Your task to perform on an android device: turn vacation reply on in the gmail app Image 0: 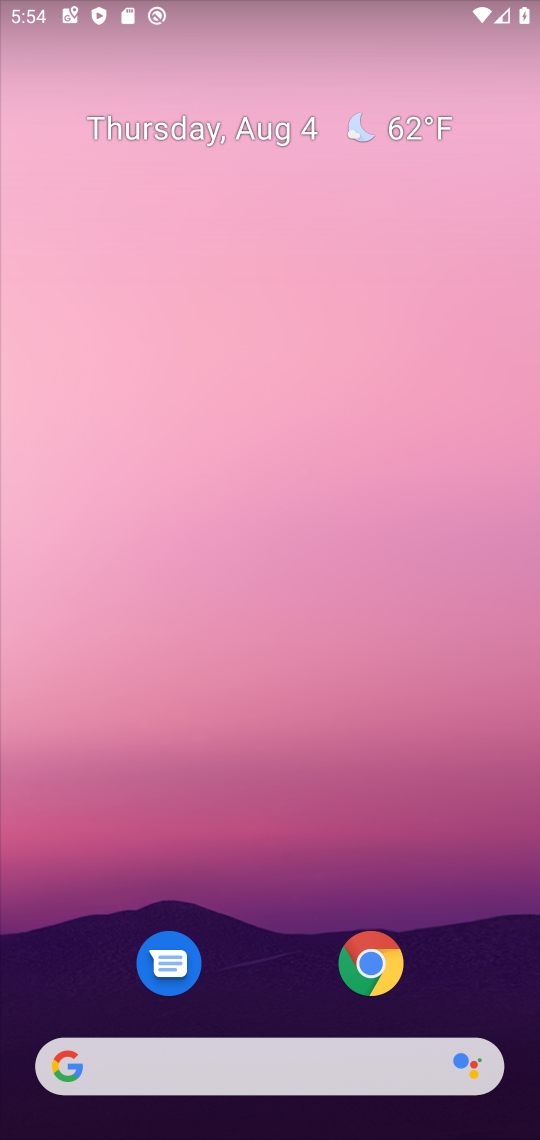
Step 0: drag from (246, 805) to (238, 41)
Your task to perform on an android device: turn vacation reply on in the gmail app Image 1: 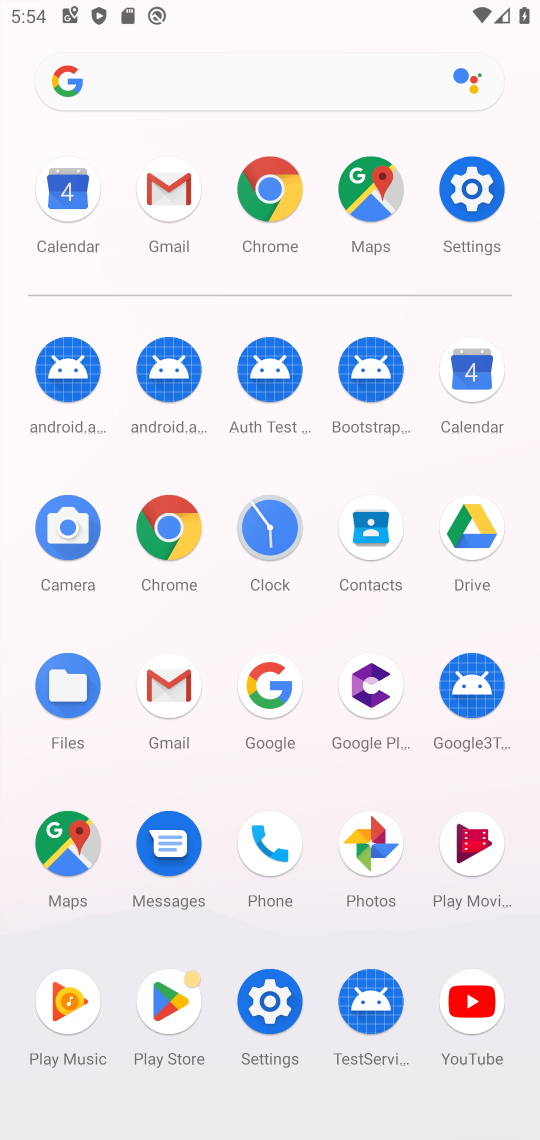
Step 1: click (170, 688)
Your task to perform on an android device: turn vacation reply on in the gmail app Image 2: 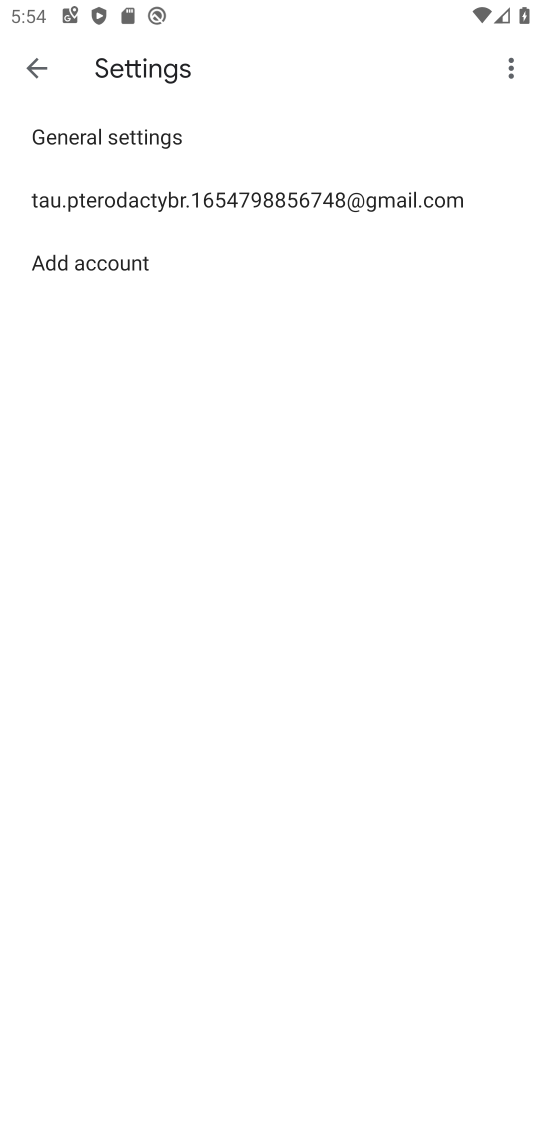
Step 2: click (97, 190)
Your task to perform on an android device: turn vacation reply on in the gmail app Image 3: 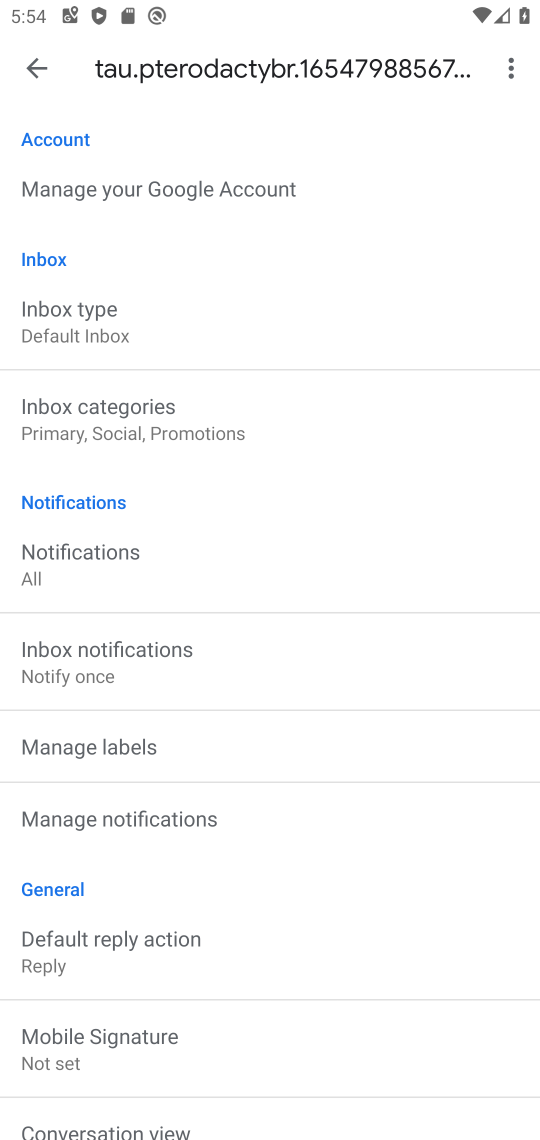
Step 3: drag from (284, 1009) to (284, 344)
Your task to perform on an android device: turn vacation reply on in the gmail app Image 4: 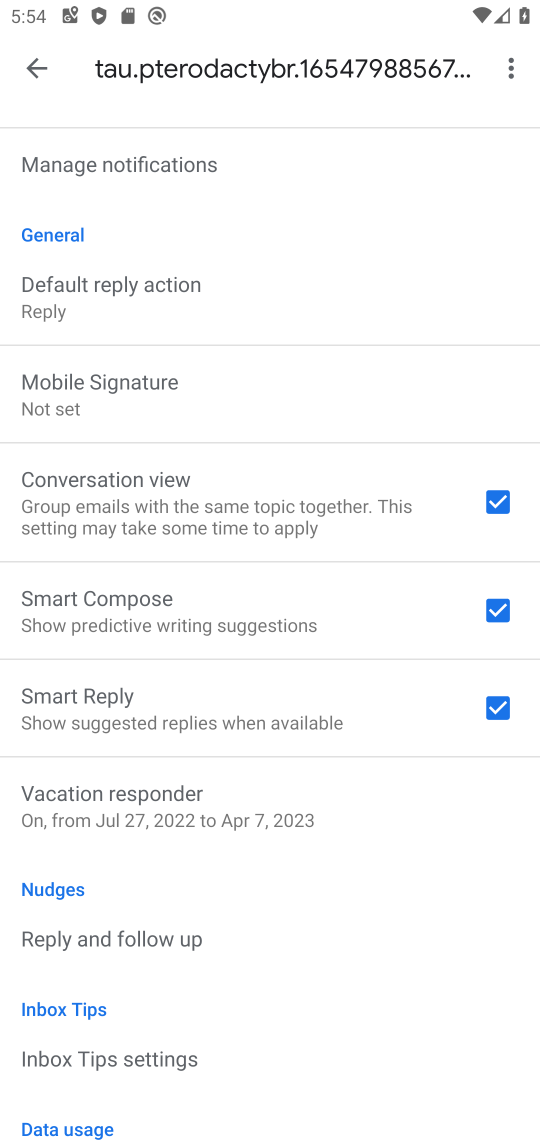
Step 4: click (146, 797)
Your task to perform on an android device: turn vacation reply on in the gmail app Image 5: 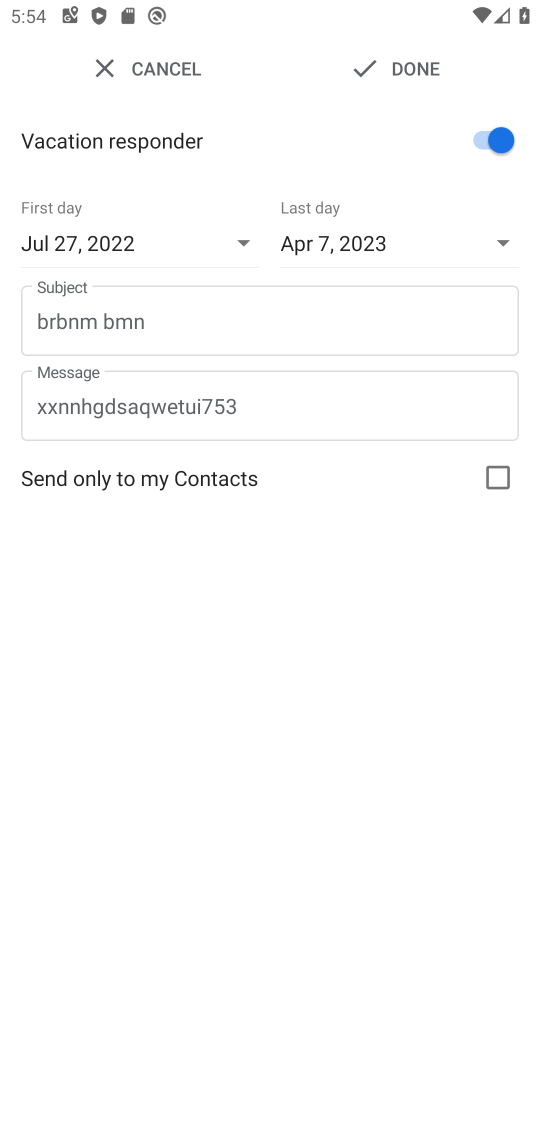
Step 5: task complete